Your task to perform on an android device: Open the stopwatch Image 0: 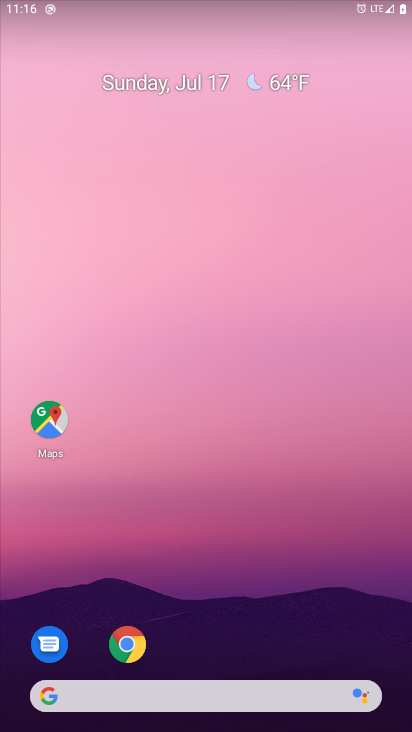
Step 0: press home button
Your task to perform on an android device: Open the stopwatch Image 1: 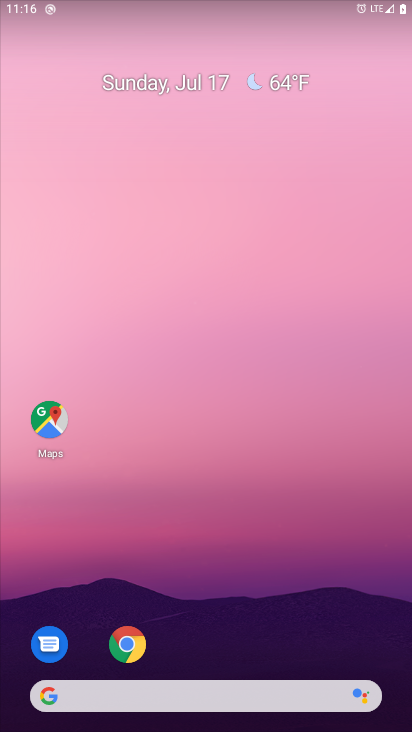
Step 1: drag from (232, 596) to (200, 51)
Your task to perform on an android device: Open the stopwatch Image 2: 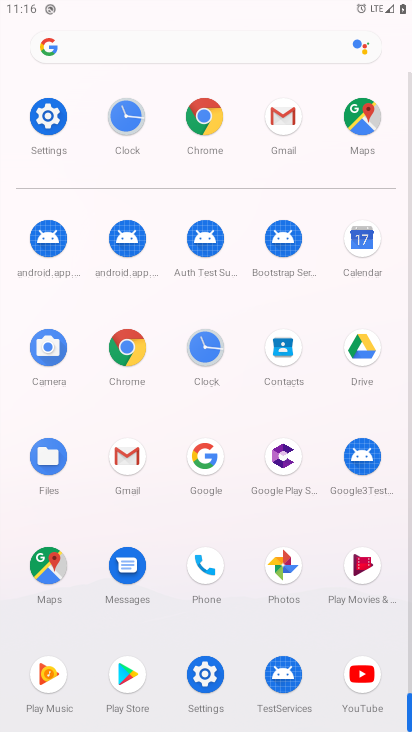
Step 2: click (130, 121)
Your task to perform on an android device: Open the stopwatch Image 3: 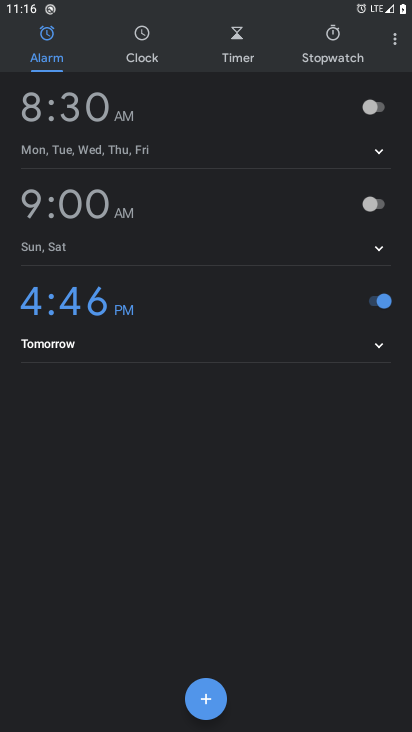
Step 3: click (337, 35)
Your task to perform on an android device: Open the stopwatch Image 4: 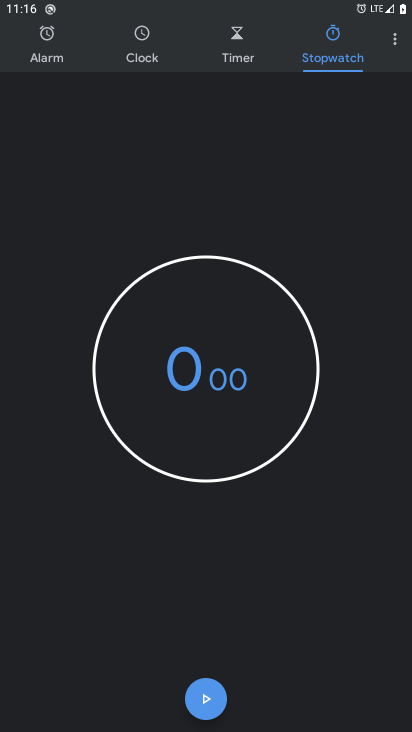
Step 4: task complete